Your task to perform on an android device: Open calendar and show me the fourth week of next month Image 0: 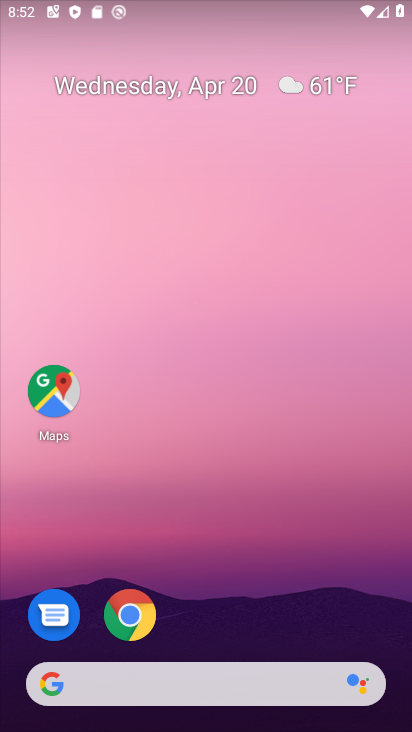
Step 0: drag from (169, 654) to (144, 50)
Your task to perform on an android device: Open calendar and show me the fourth week of next month Image 1: 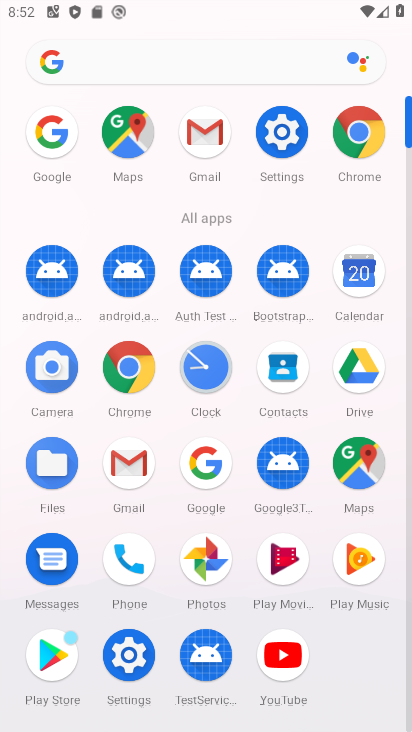
Step 1: click (359, 277)
Your task to perform on an android device: Open calendar and show me the fourth week of next month Image 2: 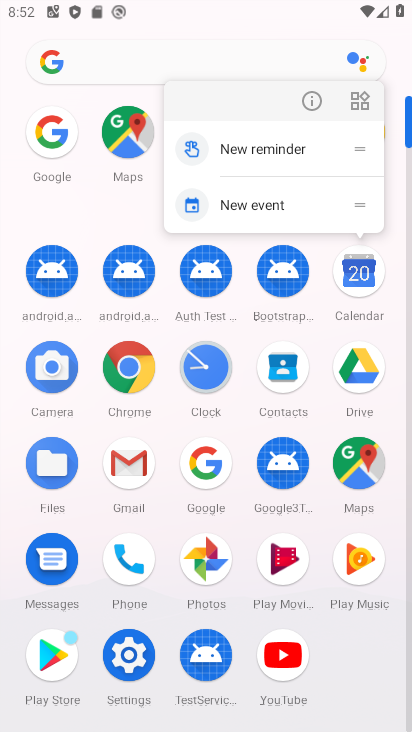
Step 2: click (359, 277)
Your task to perform on an android device: Open calendar and show me the fourth week of next month Image 3: 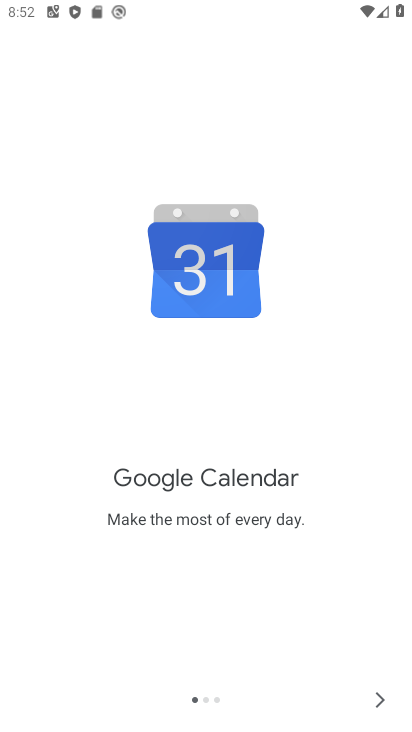
Step 3: click (370, 694)
Your task to perform on an android device: Open calendar and show me the fourth week of next month Image 4: 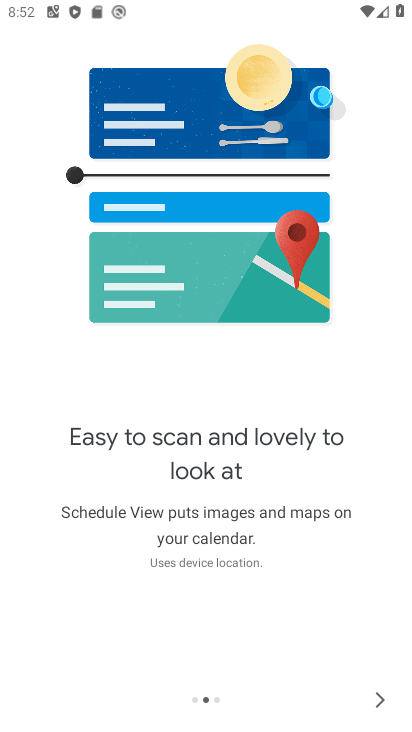
Step 4: click (370, 695)
Your task to perform on an android device: Open calendar and show me the fourth week of next month Image 5: 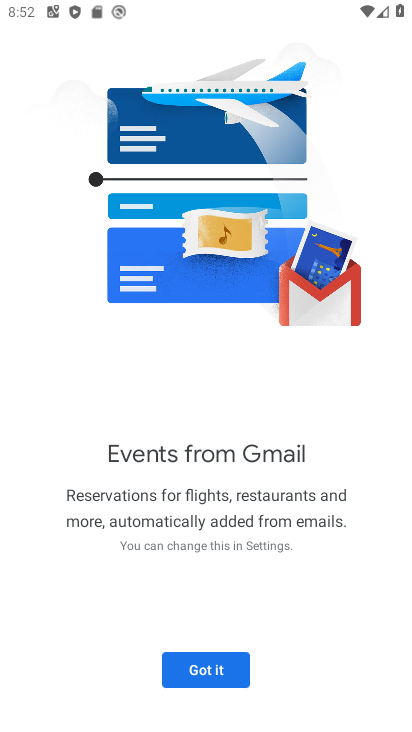
Step 5: click (164, 677)
Your task to perform on an android device: Open calendar and show me the fourth week of next month Image 6: 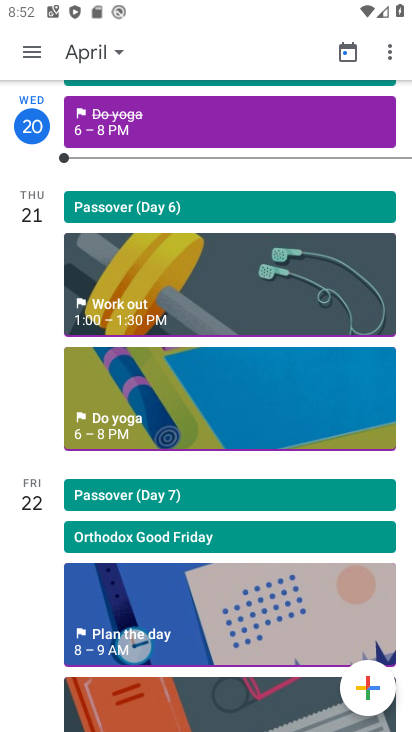
Step 6: click (33, 58)
Your task to perform on an android device: Open calendar and show me the fourth week of next month Image 7: 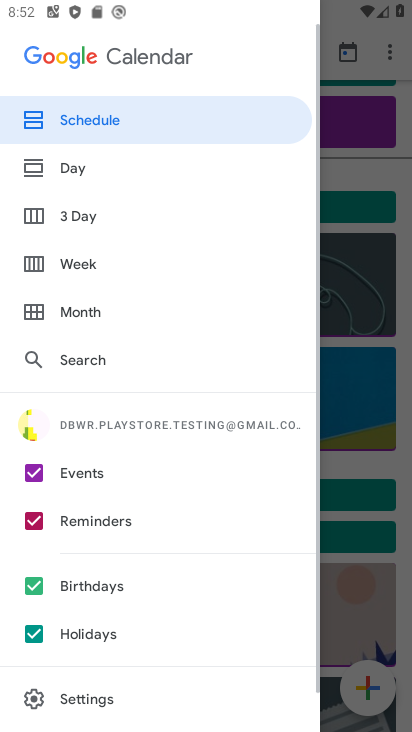
Step 7: click (99, 261)
Your task to perform on an android device: Open calendar and show me the fourth week of next month Image 8: 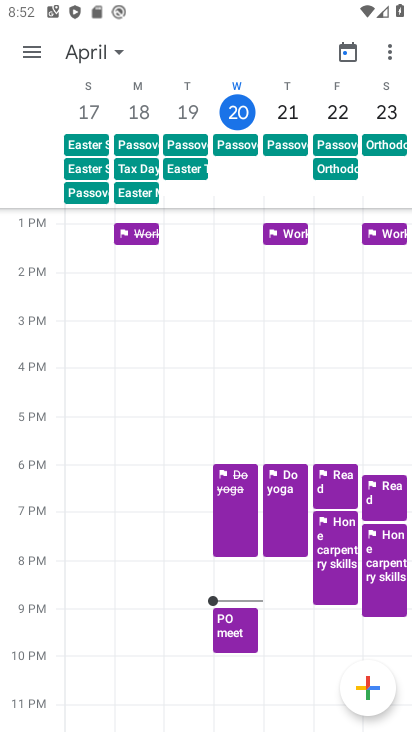
Step 8: task complete